Your task to perform on an android device: Show the shopping cart on bestbuy. Search for "asus zenbook" on bestbuy, select the first entry, and add it to the cart. Image 0: 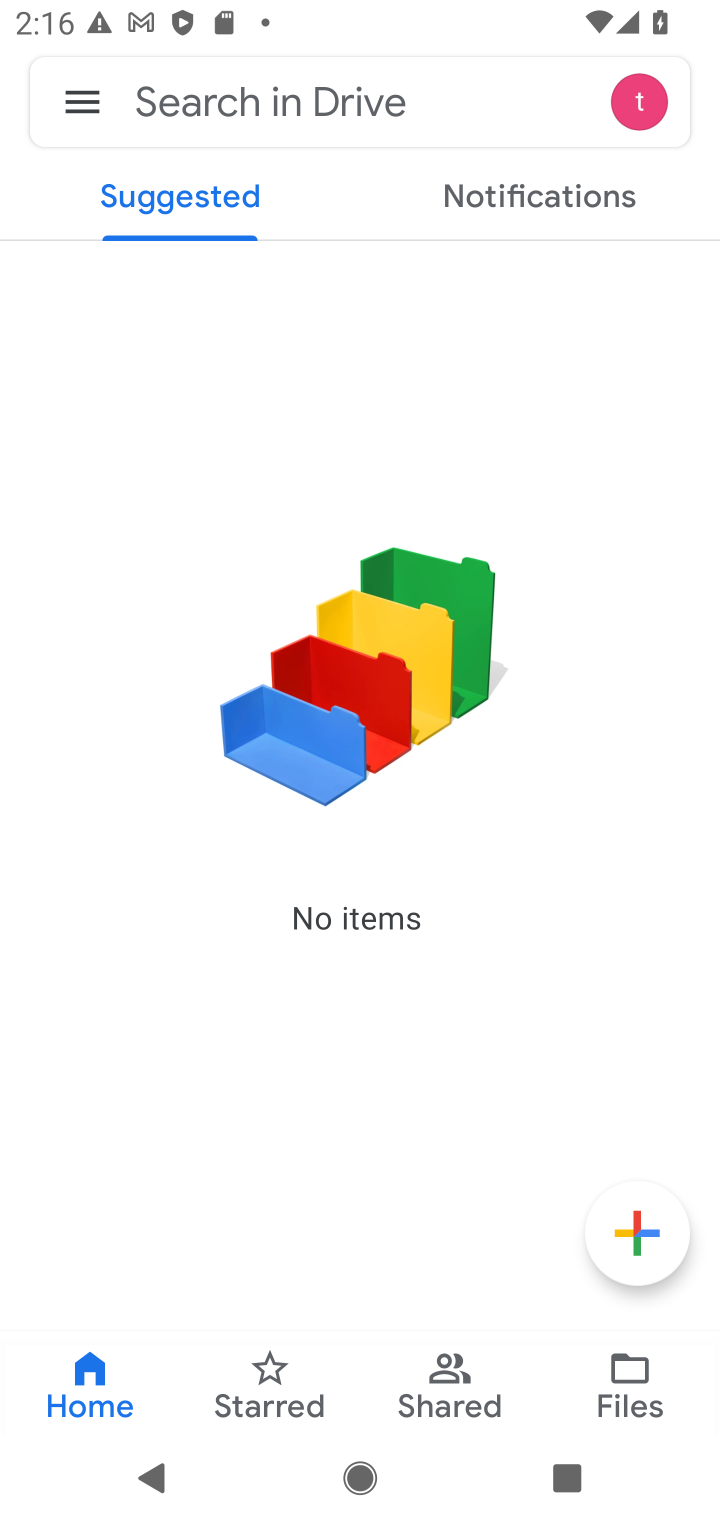
Step 0: press home button
Your task to perform on an android device: Show the shopping cart on bestbuy. Search for "asus zenbook" on bestbuy, select the first entry, and add it to the cart. Image 1: 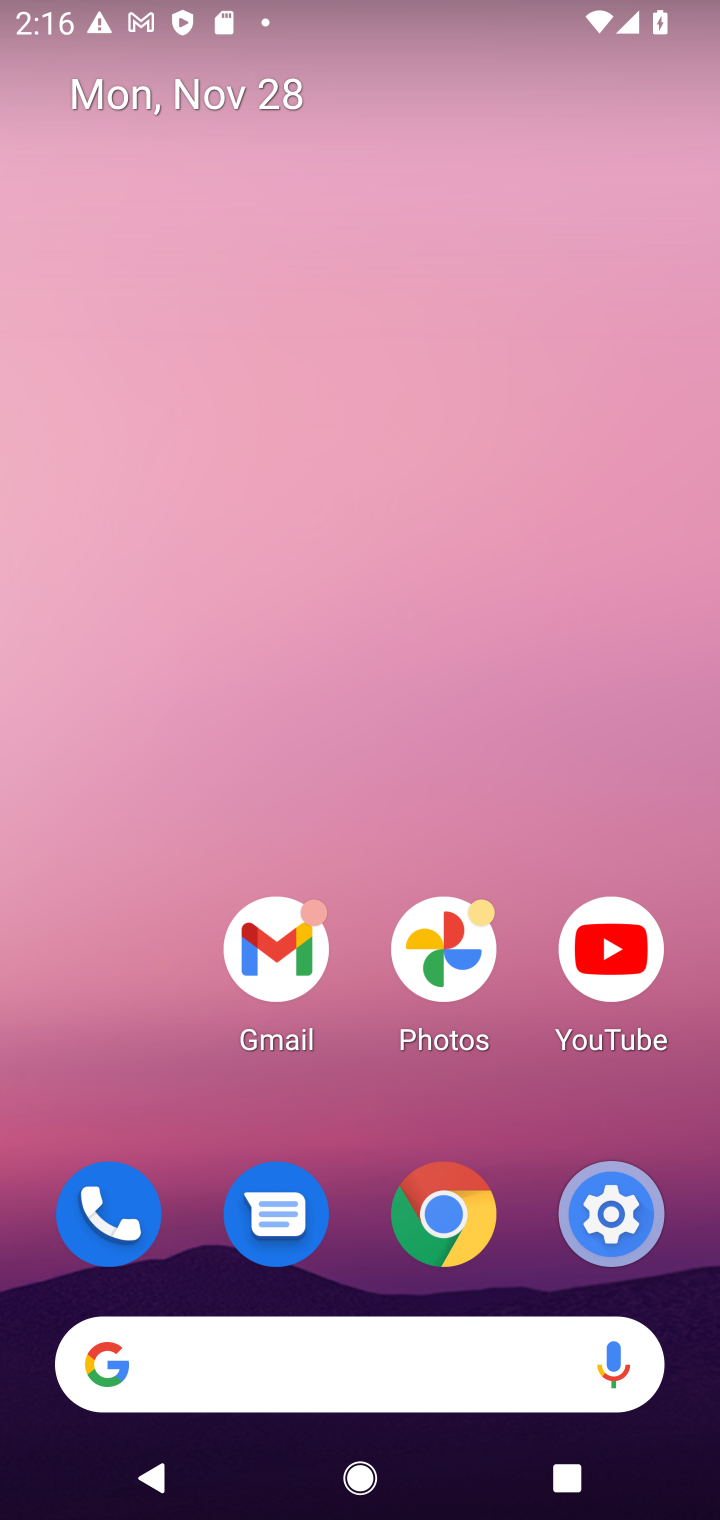
Step 1: click (425, 1388)
Your task to perform on an android device: Show the shopping cart on bestbuy. Search for "asus zenbook" on bestbuy, select the first entry, and add it to the cart. Image 2: 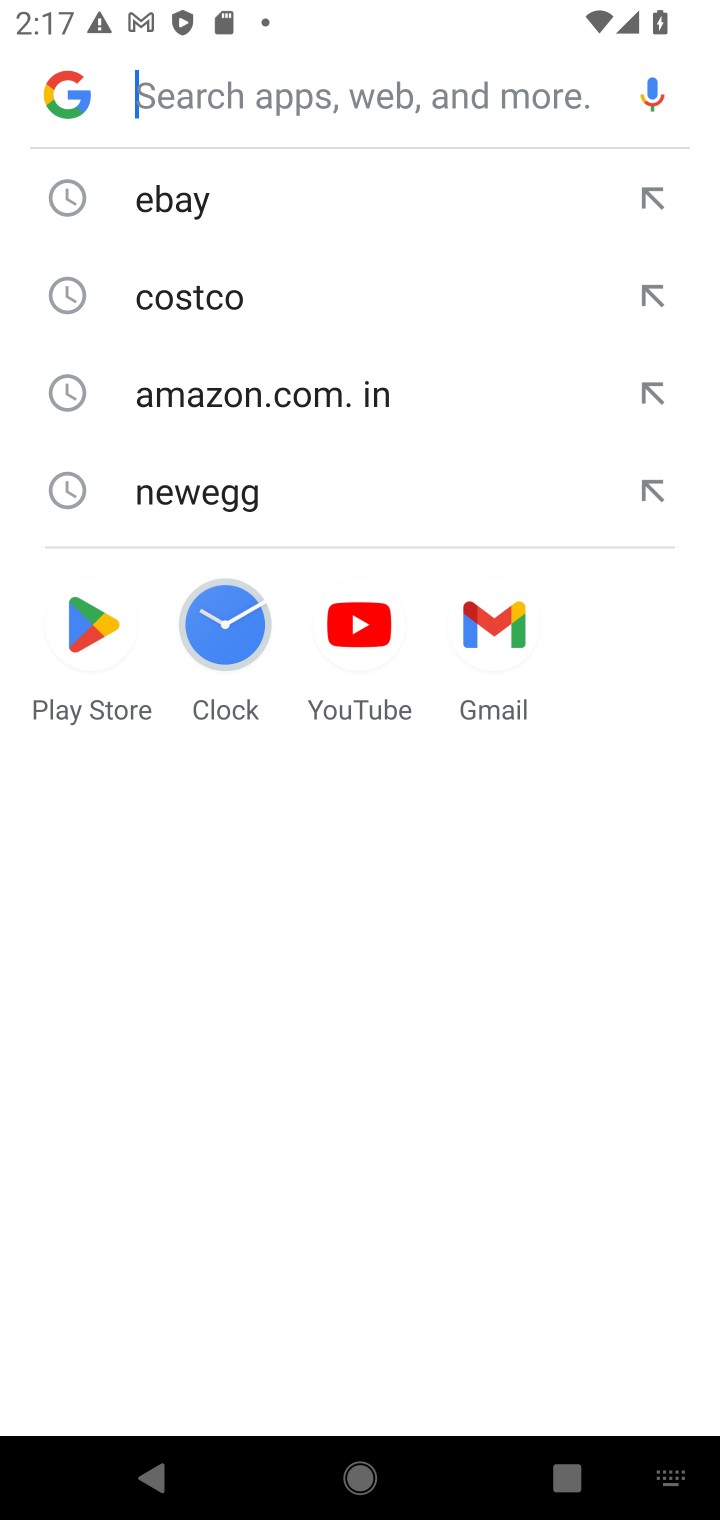
Step 2: type "bestbuy"
Your task to perform on an android device: Show the shopping cart on bestbuy. Search for "asus zenbook" on bestbuy, select the first entry, and add it to the cart. Image 3: 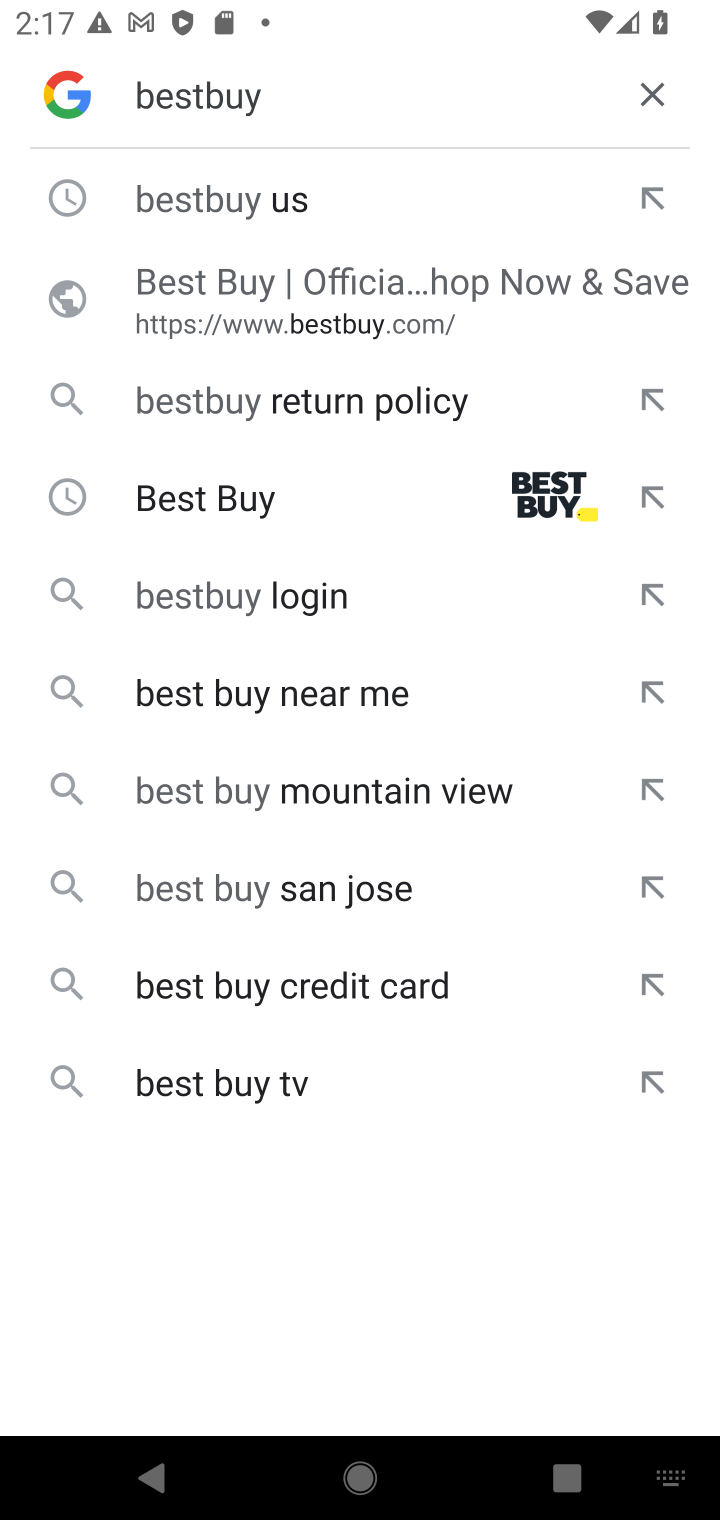
Step 3: click (213, 200)
Your task to perform on an android device: Show the shopping cart on bestbuy. Search for "asus zenbook" on bestbuy, select the first entry, and add it to the cart. Image 4: 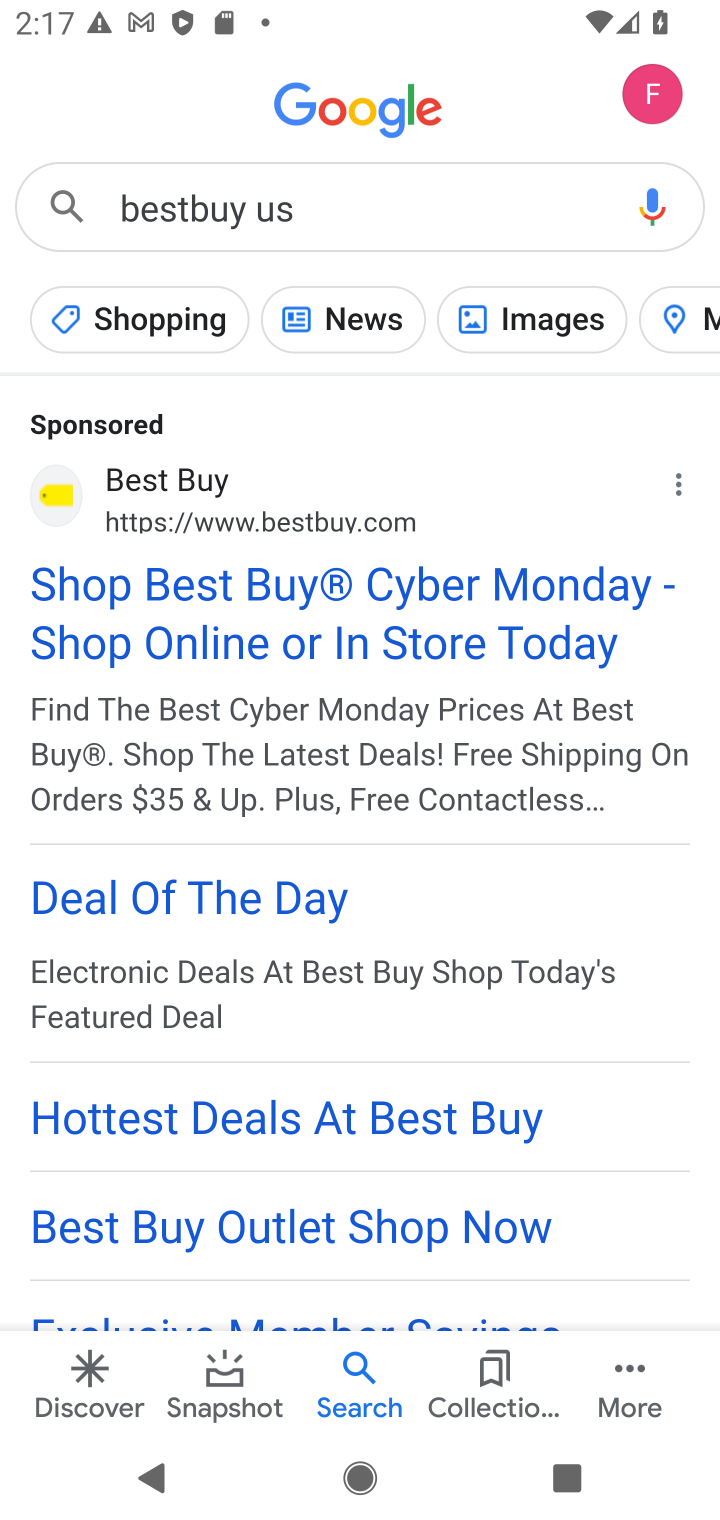
Step 4: click (290, 628)
Your task to perform on an android device: Show the shopping cart on bestbuy. Search for "asus zenbook" on bestbuy, select the first entry, and add it to the cart. Image 5: 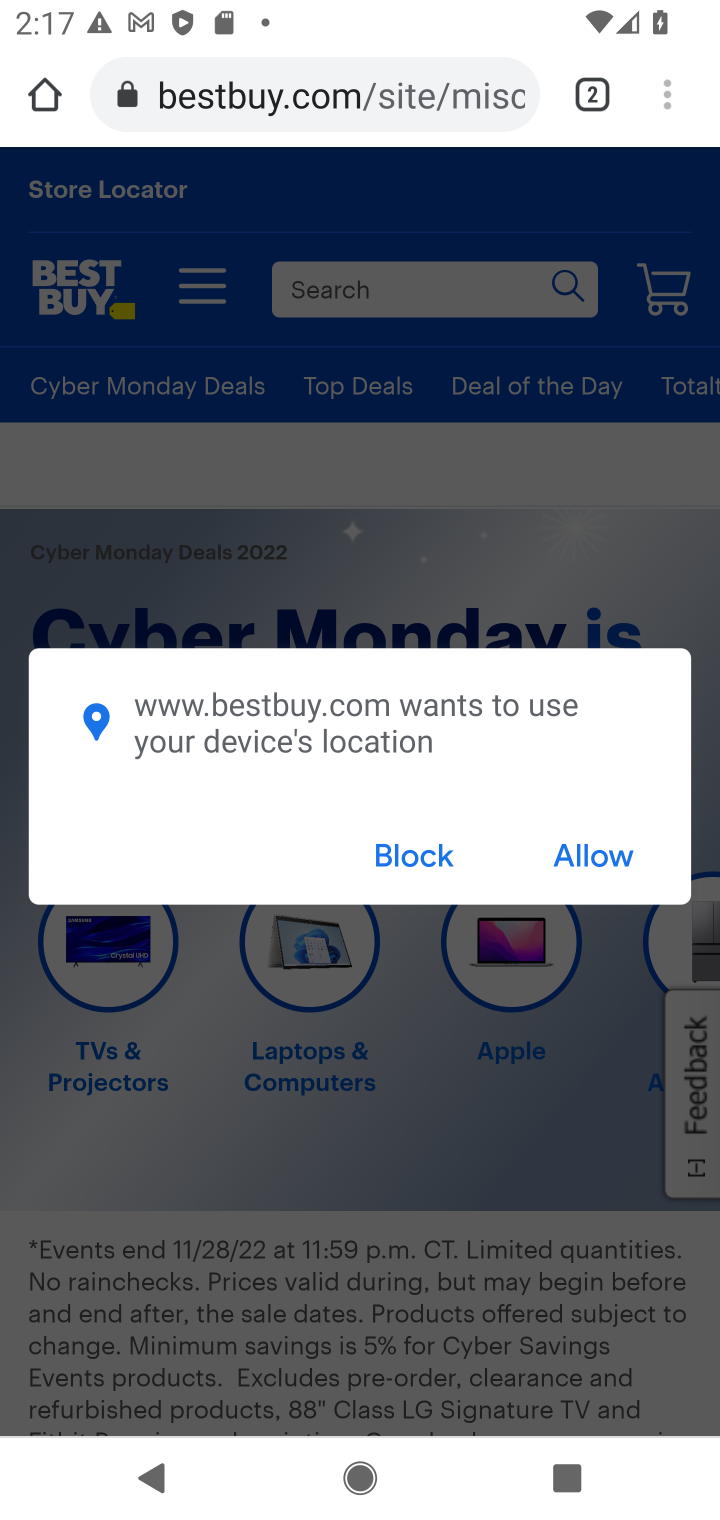
Step 5: click (411, 866)
Your task to perform on an android device: Show the shopping cart on bestbuy. Search for "asus zenbook" on bestbuy, select the first entry, and add it to the cart. Image 6: 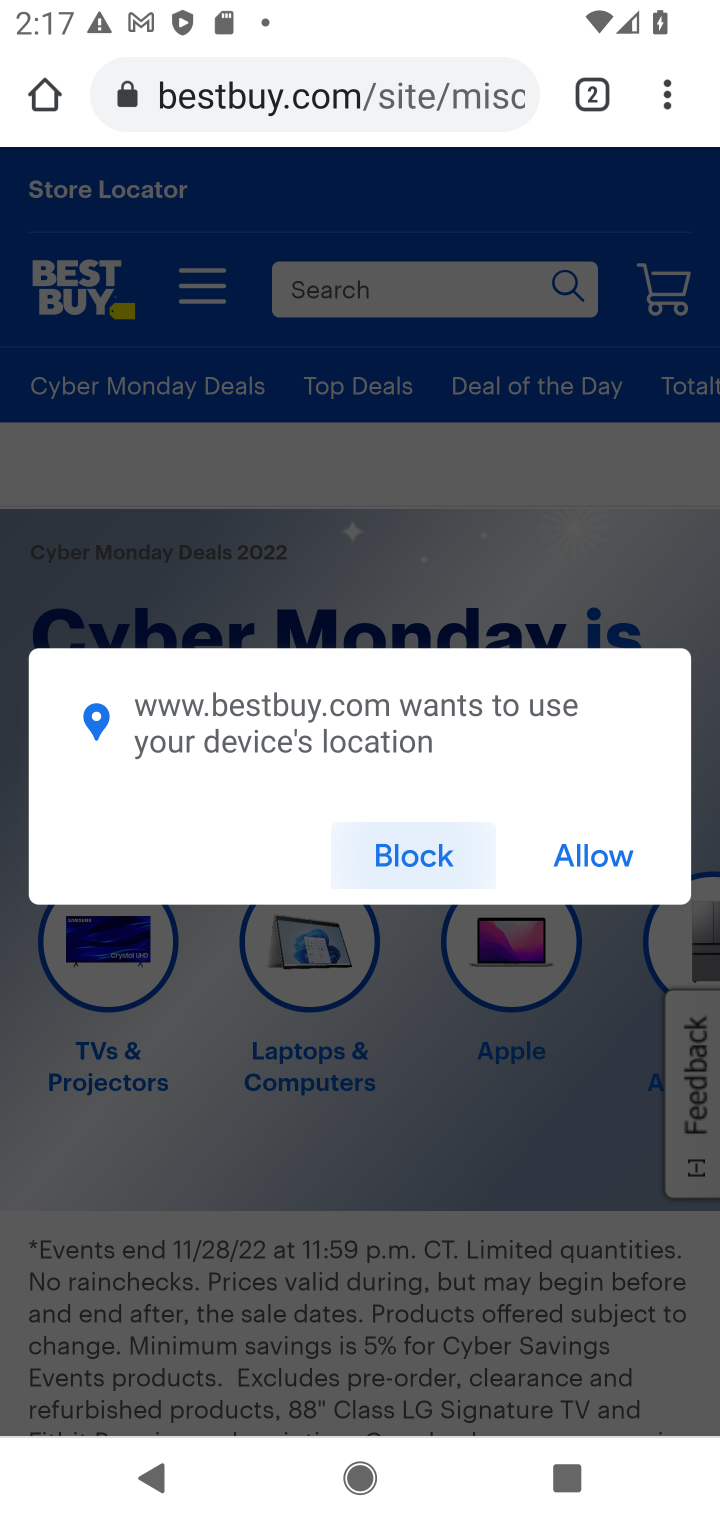
Step 6: task complete